Your task to perform on an android device: Look up the best rated wireless earbuds on Ali Express Image 0: 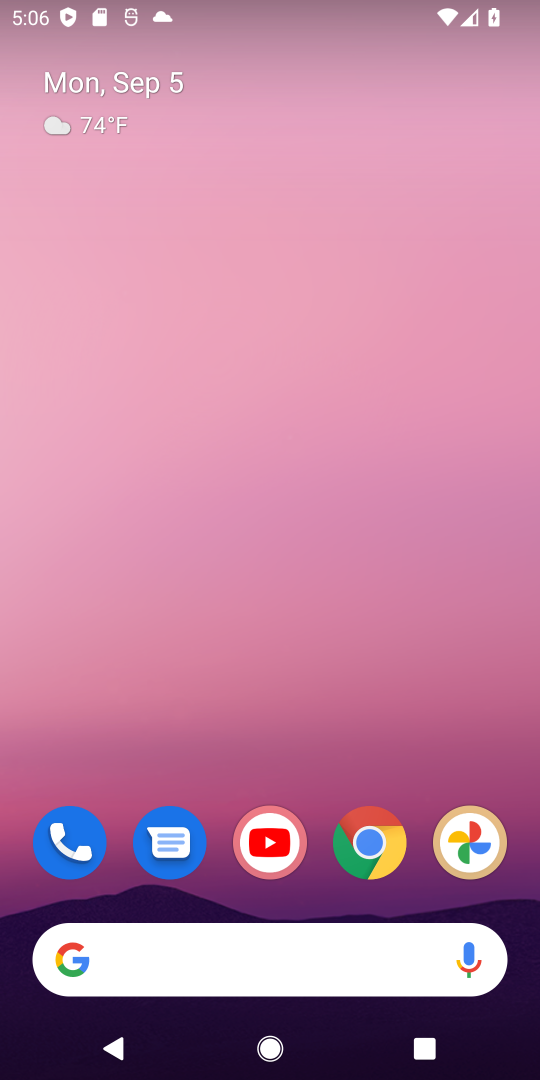
Step 0: click (373, 849)
Your task to perform on an android device: Look up the best rated wireless earbuds on Ali Express Image 1: 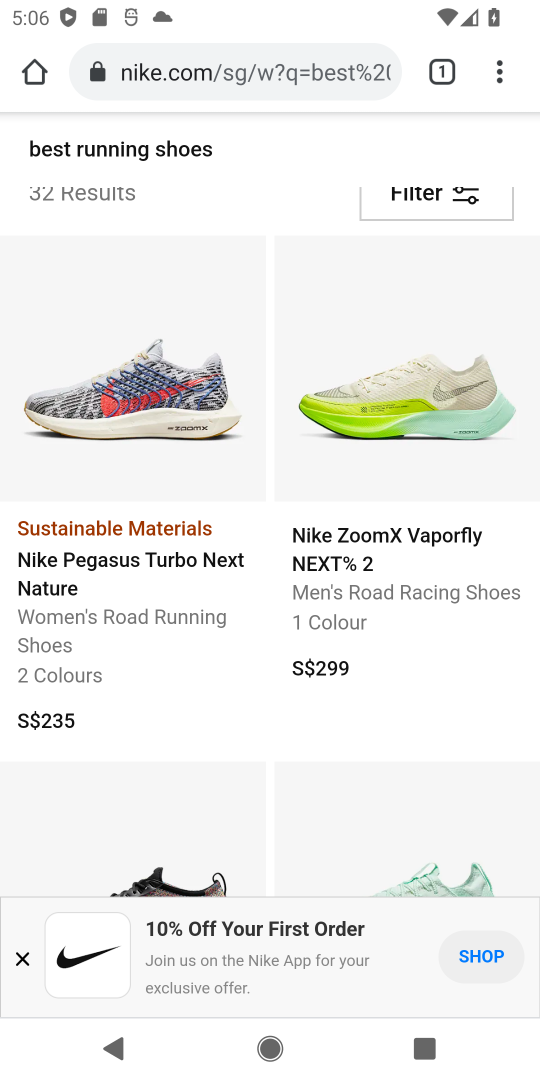
Step 1: click (265, 74)
Your task to perform on an android device: Look up the best rated wireless earbuds on Ali Express Image 2: 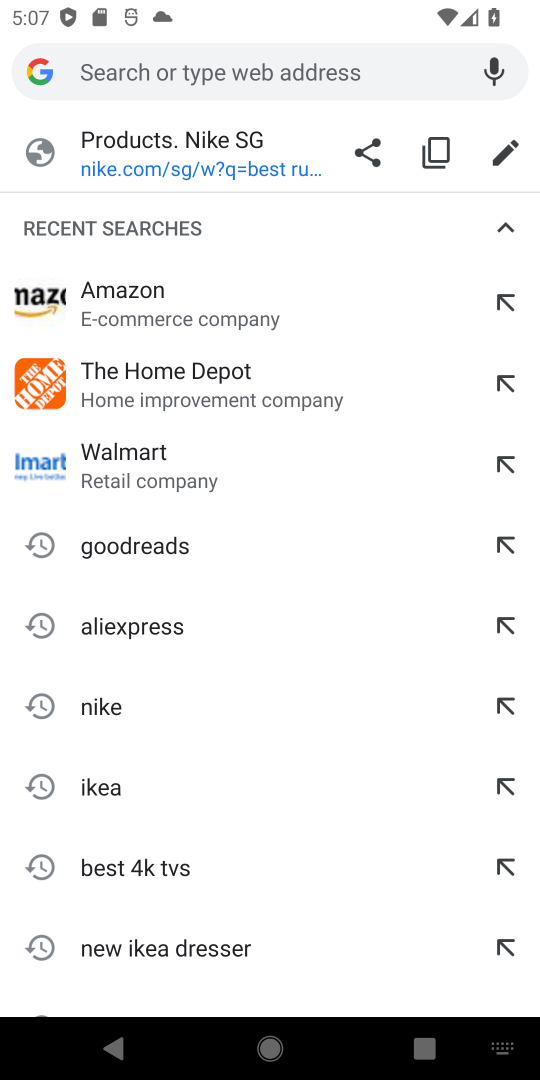
Step 2: type "Ali Express"
Your task to perform on an android device: Look up the best rated wireless earbuds on Ali Express Image 3: 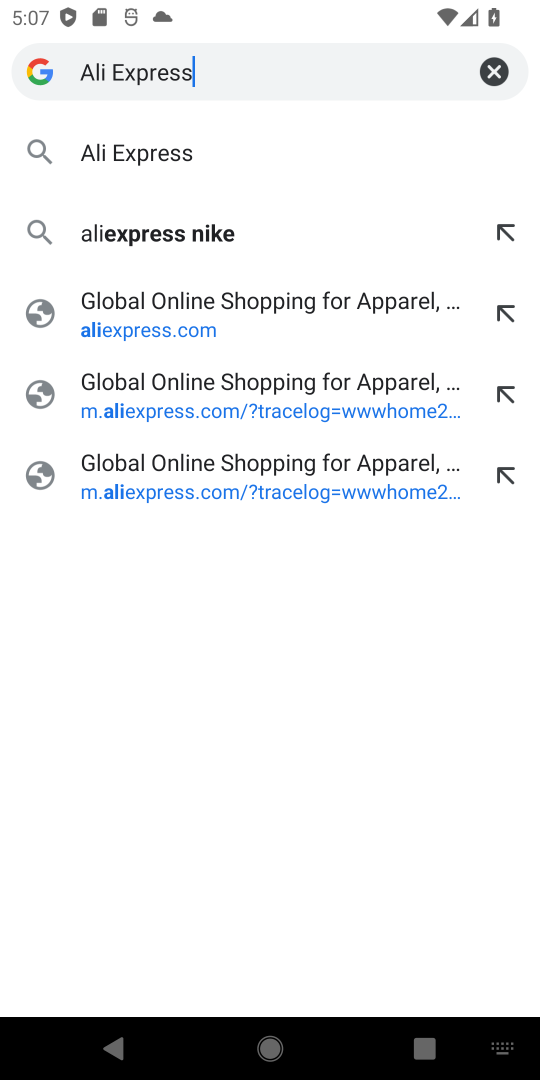
Step 3: click (175, 145)
Your task to perform on an android device: Look up the best rated wireless earbuds on Ali Express Image 4: 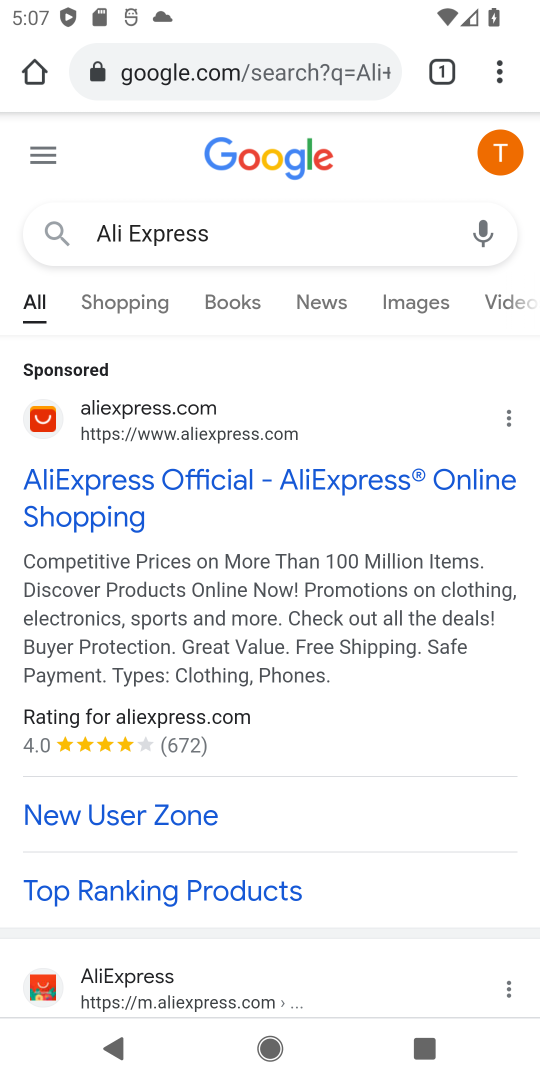
Step 4: drag from (312, 750) to (302, 407)
Your task to perform on an android device: Look up the best rated wireless earbuds on Ali Express Image 5: 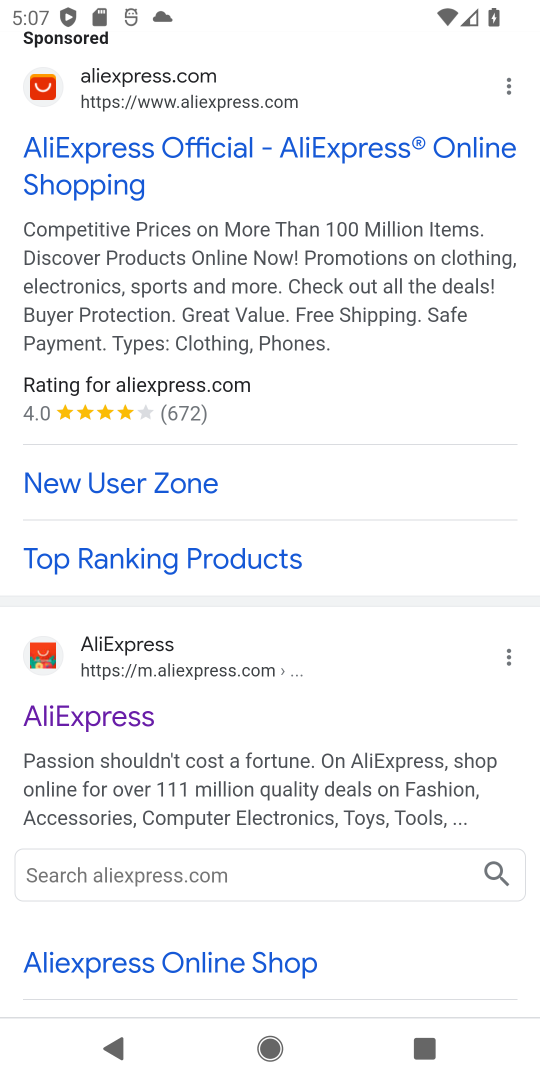
Step 5: click (128, 719)
Your task to perform on an android device: Look up the best rated wireless earbuds on Ali Express Image 6: 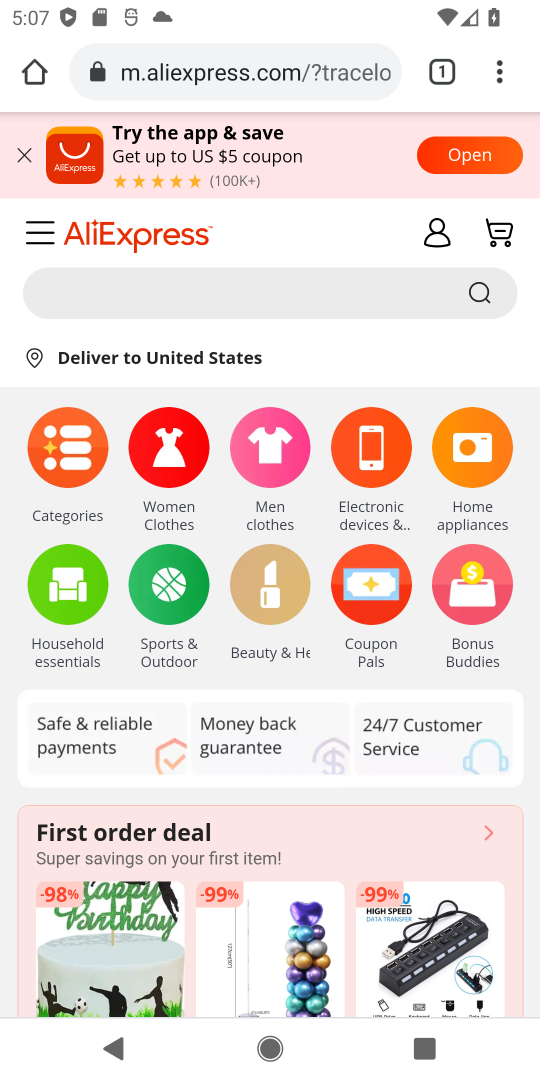
Step 6: click (185, 293)
Your task to perform on an android device: Look up the best rated wireless earbuds on Ali Express Image 7: 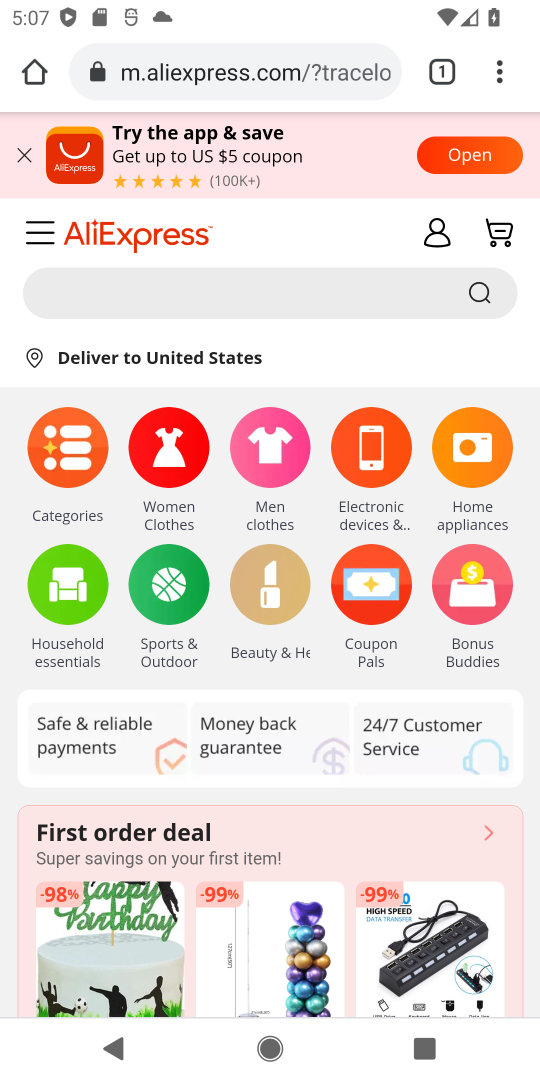
Step 7: click (175, 306)
Your task to perform on an android device: Look up the best rated wireless earbuds on Ali Express Image 8: 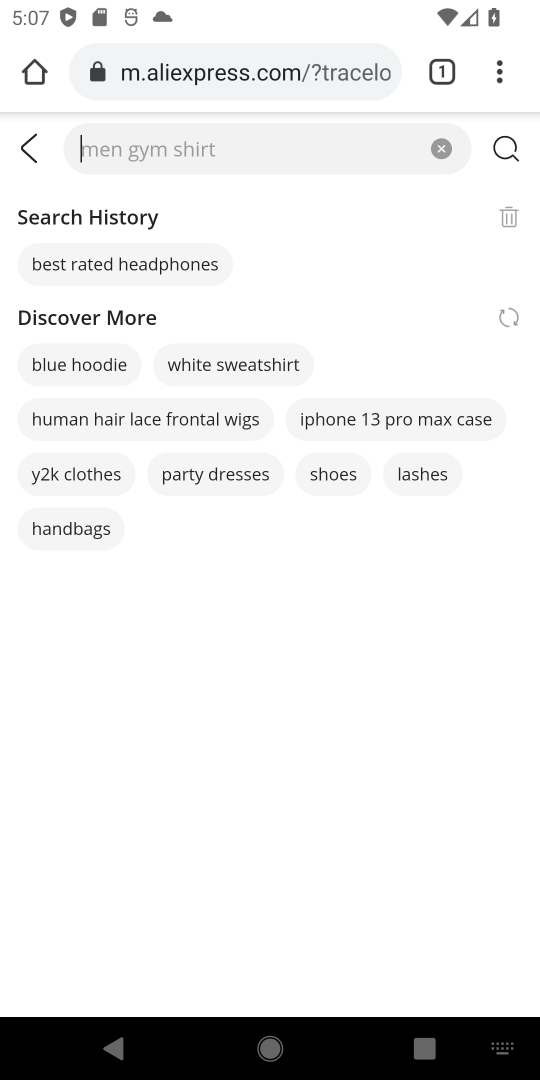
Step 8: type "best rated wireless earbuds"
Your task to perform on an android device: Look up the best rated wireless earbuds on Ali Express Image 9: 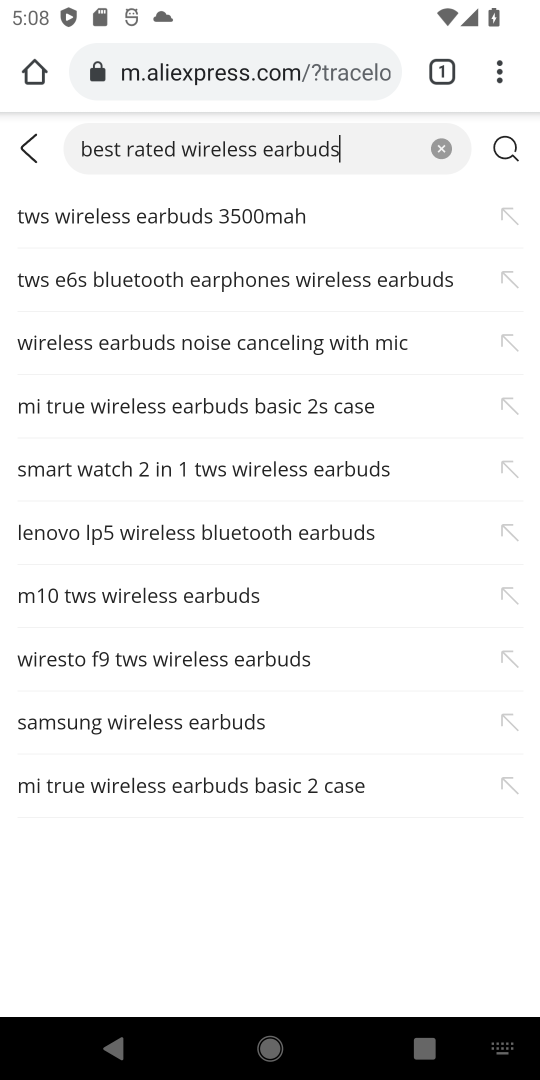
Step 9: click (516, 152)
Your task to perform on an android device: Look up the best rated wireless earbuds on Ali Express Image 10: 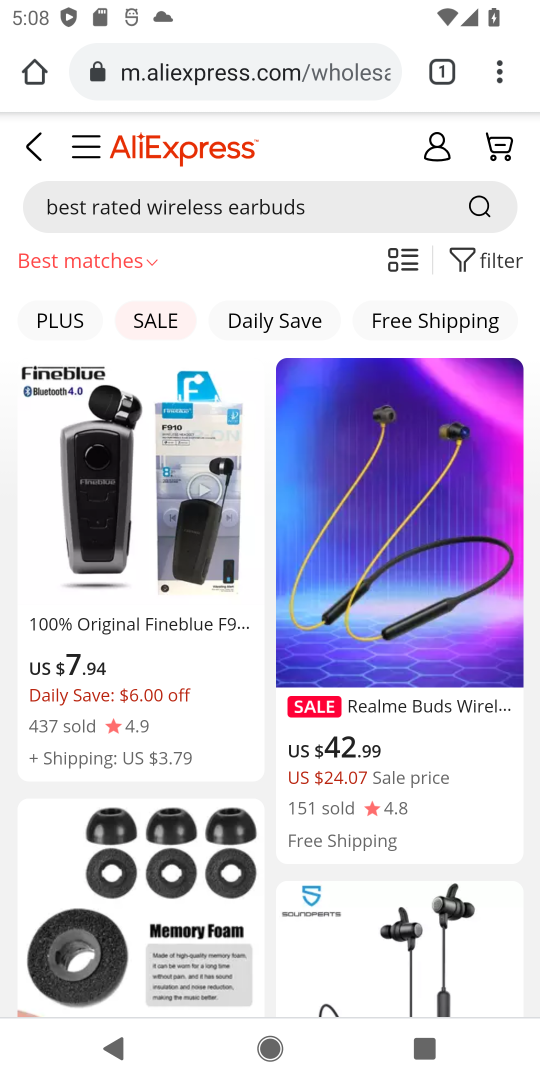
Step 10: task complete